Your task to perform on an android device: add a contact Image 0: 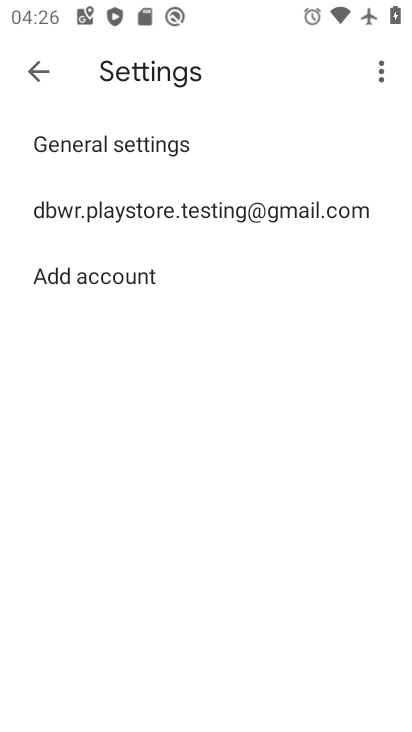
Step 0: press home button
Your task to perform on an android device: add a contact Image 1: 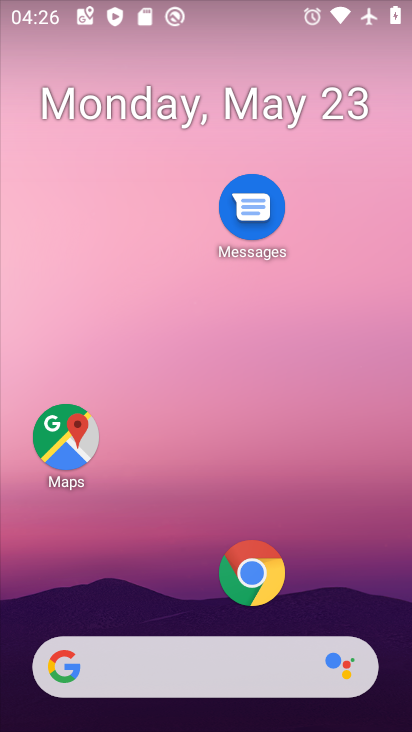
Step 1: drag from (265, 660) to (299, 10)
Your task to perform on an android device: add a contact Image 2: 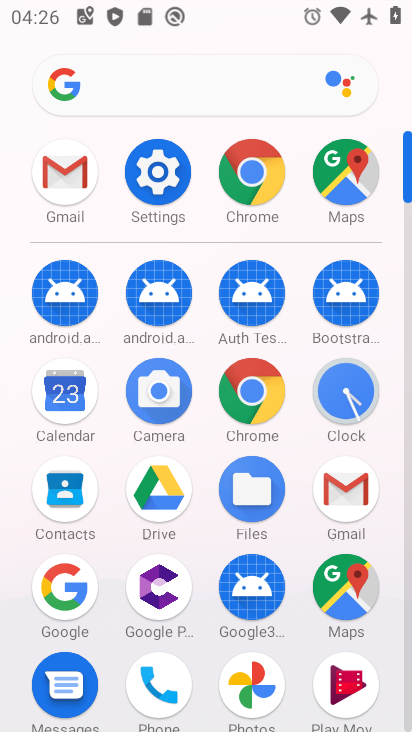
Step 2: click (75, 485)
Your task to perform on an android device: add a contact Image 3: 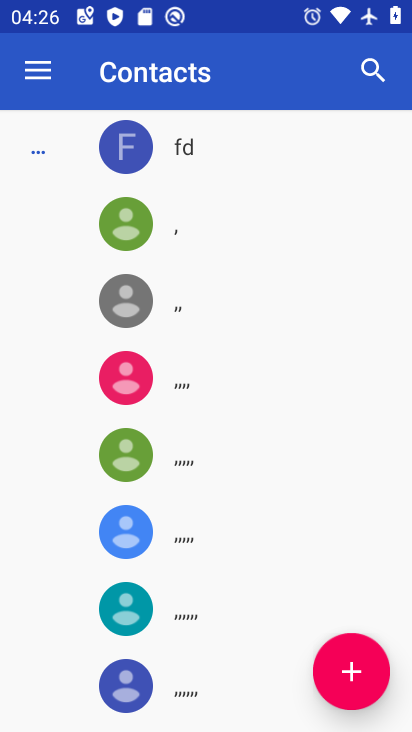
Step 3: click (344, 673)
Your task to perform on an android device: add a contact Image 4: 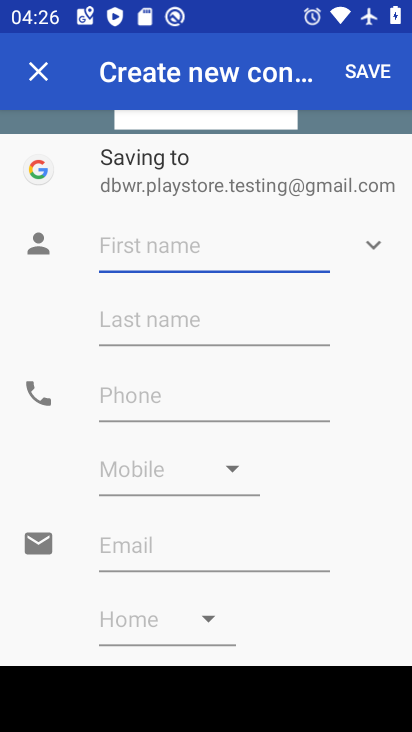
Step 4: type "gffjhgjg"
Your task to perform on an android device: add a contact Image 5: 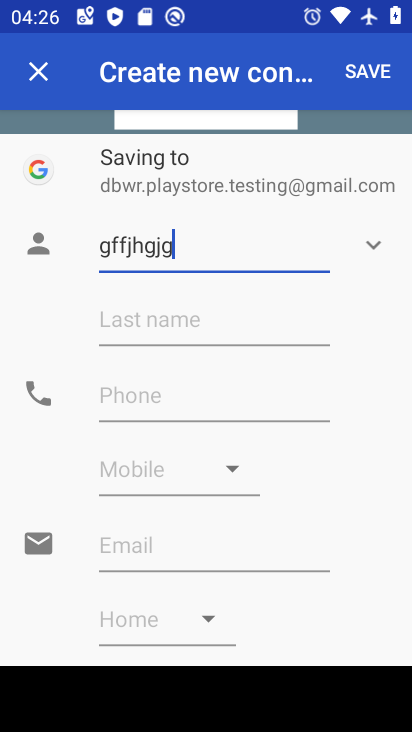
Step 5: click (189, 373)
Your task to perform on an android device: add a contact Image 6: 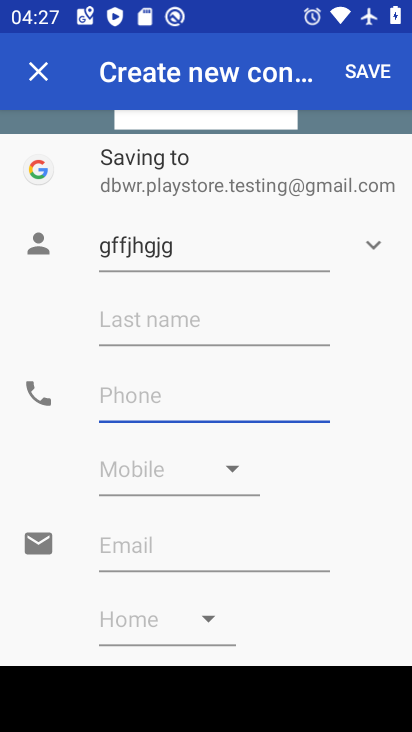
Step 6: type "9898767788"
Your task to perform on an android device: add a contact Image 7: 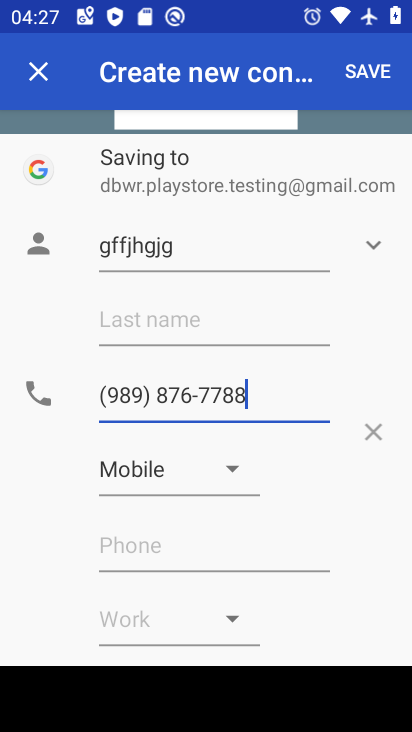
Step 7: click (388, 68)
Your task to perform on an android device: add a contact Image 8: 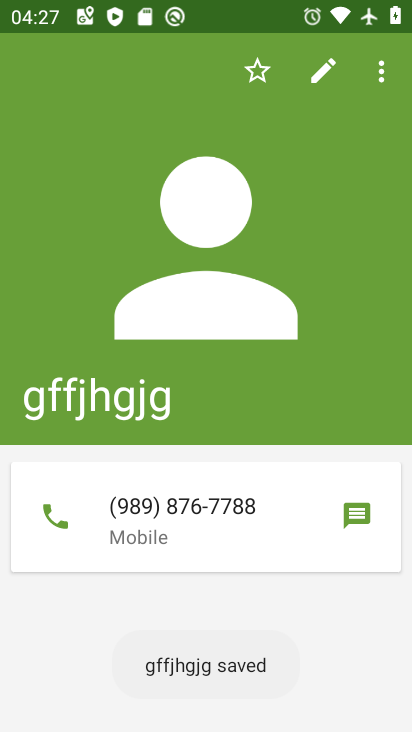
Step 8: task complete